Your task to perform on an android device: Search for the new nike shoes on Target Image 0: 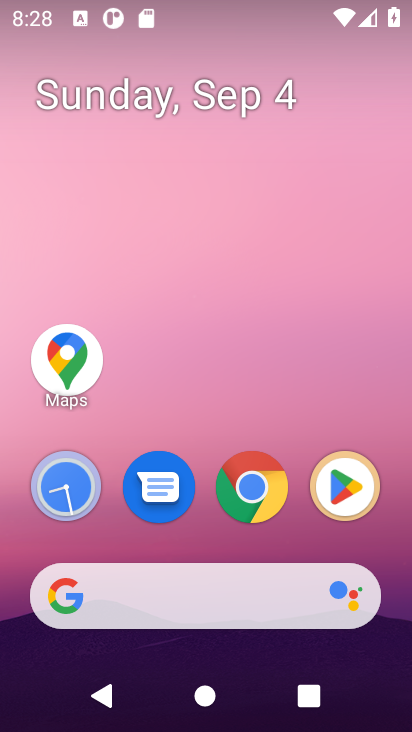
Step 0: click (173, 594)
Your task to perform on an android device: Search for the new nike shoes on Target Image 1: 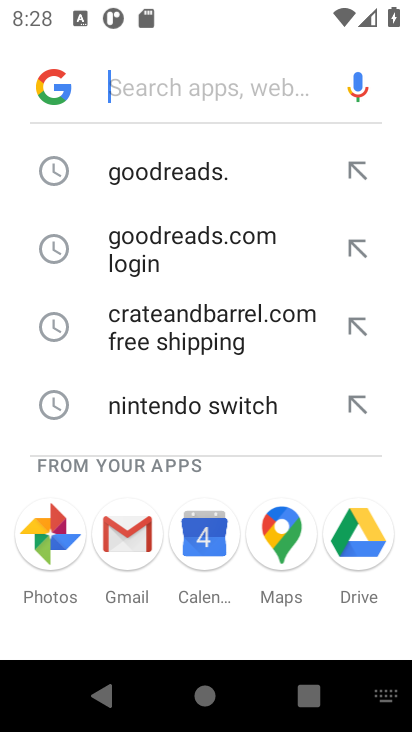
Step 1: type "target.com"
Your task to perform on an android device: Search for the new nike shoes on Target Image 2: 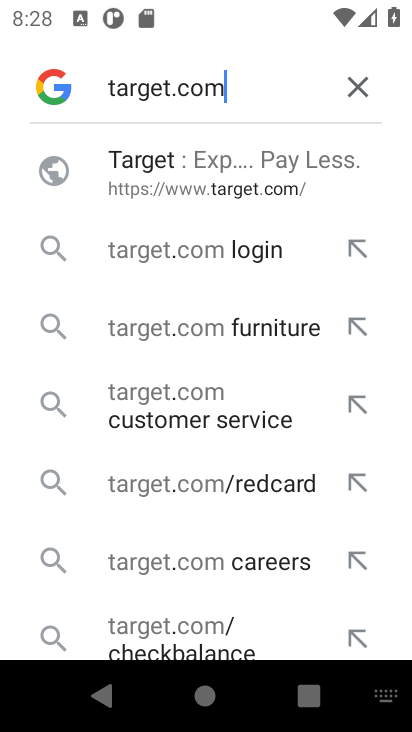
Step 2: click (284, 191)
Your task to perform on an android device: Search for the new nike shoes on Target Image 3: 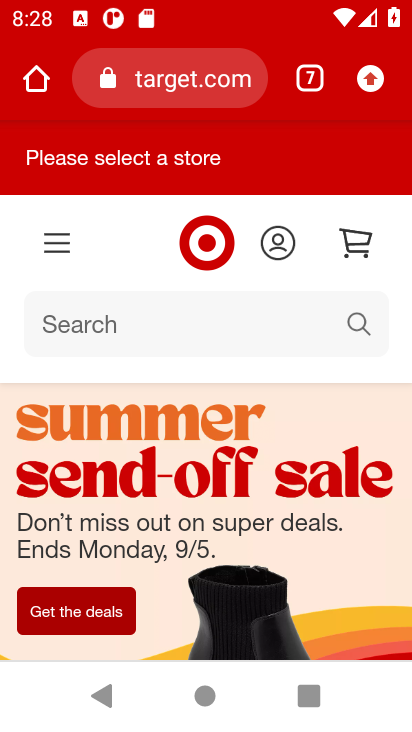
Step 3: click (213, 301)
Your task to perform on an android device: Search for the new nike shoes on Target Image 4: 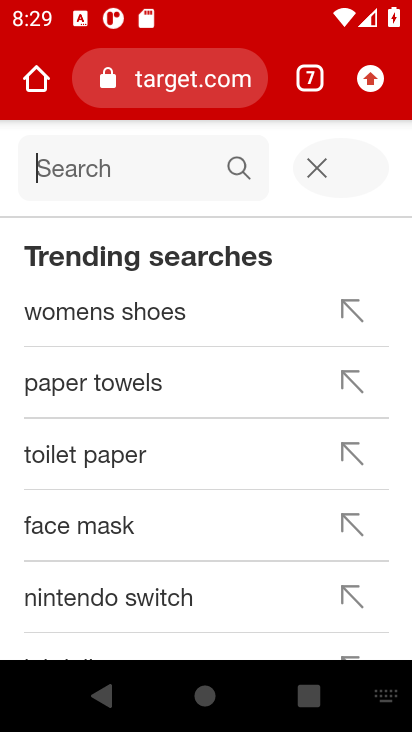
Step 4: type "nike shoes"
Your task to perform on an android device: Search for the new nike shoes on Target Image 5: 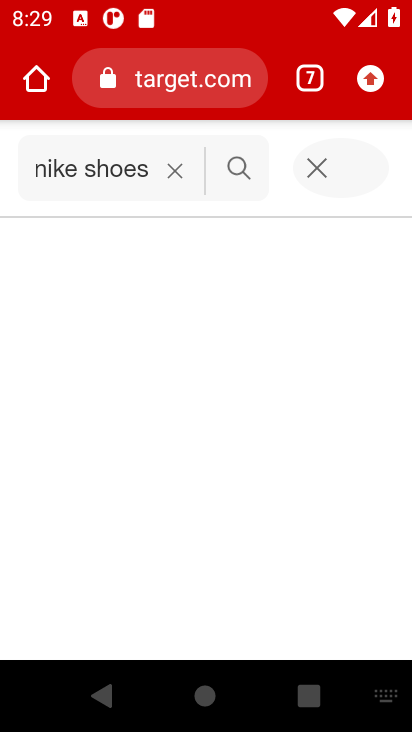
Step 5: click (239, 179)
Your task to perform on an android device: Search for the new nike shoes on Target Image 6: 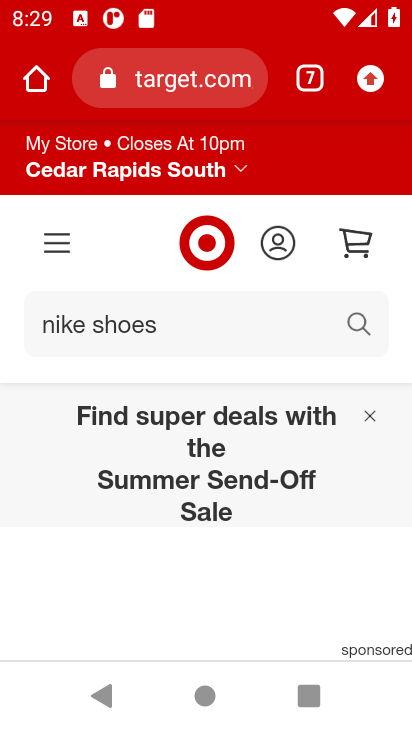
Step 6: task complete